Your task to perform on an android device: Open maps Image 0: 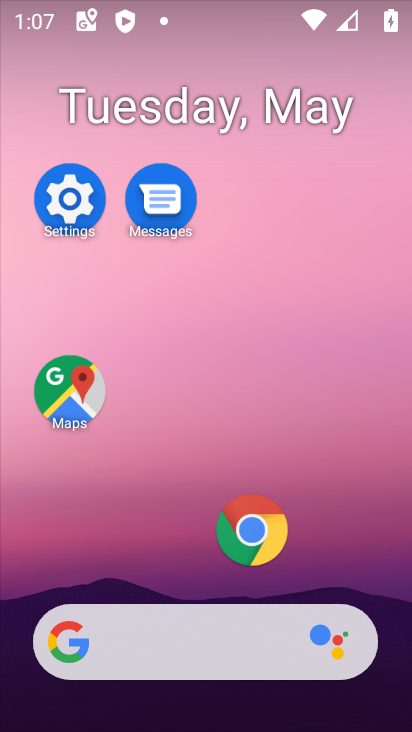
Step 0: drag from (161, 569) to (276, 205)
Your task to perform on an android device: Open maps Image 1: 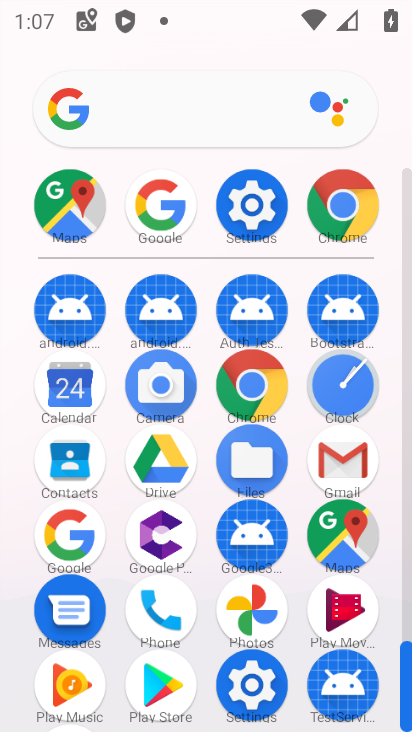
Step 1: click (357, 536)
Your task to perform on an android device: Open maps Image 2: 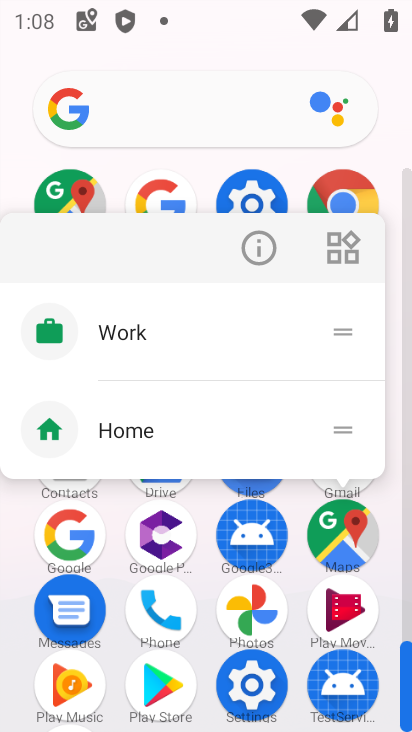
Step 2: click (338, 548)
Your task to perform on an android device: Open maps Image 3: 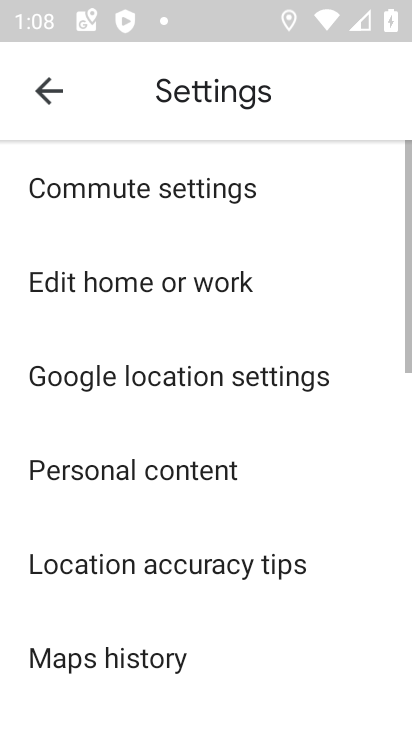
Step 3: task complete